Your task to perform on an android device: turn off javascript in the chrome app Image 0: 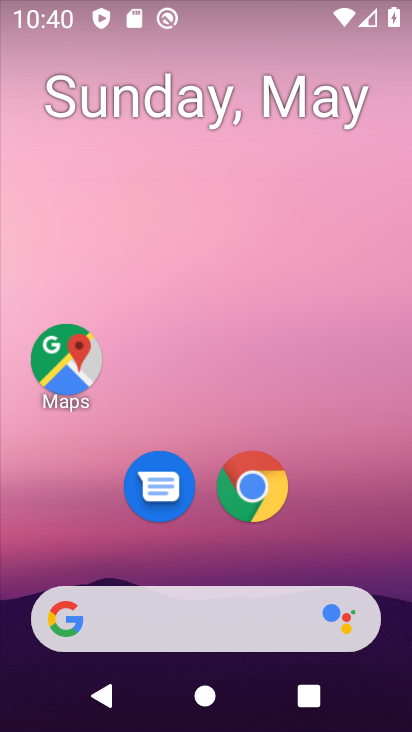
Step 0: drag from (399, 586) to (331, 156)
Your task to perform on an android device: turn off javascript in the chrome app Image 1: 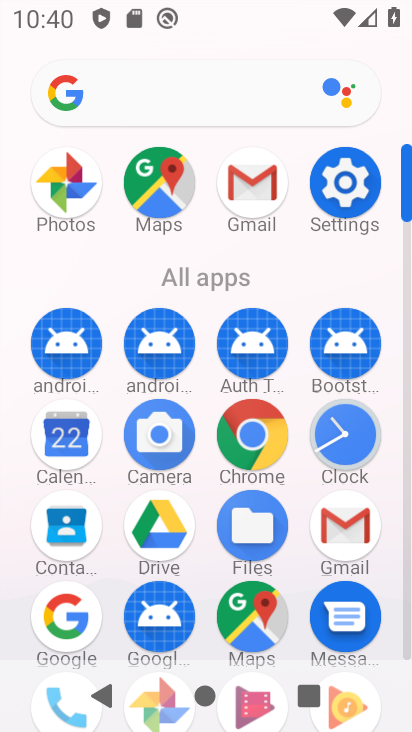
Step 1: click (269, 435)
Your task to perform on an android device: turn off javascript in the chrome app Image 2: 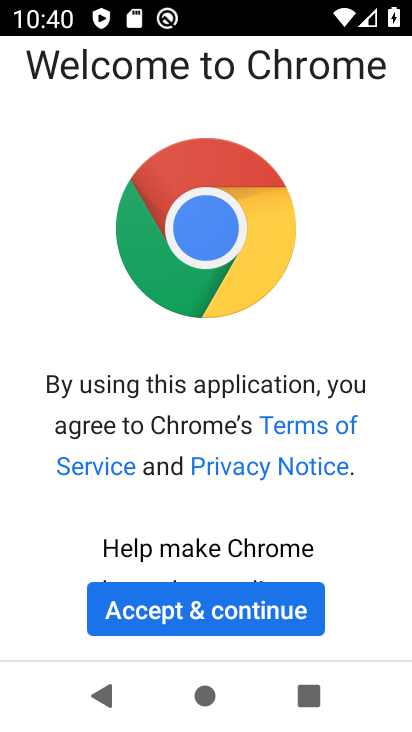
Step 2: click (295, 609)
Your task to perform on an android device: turn off javascript in the chrome app Image 3: 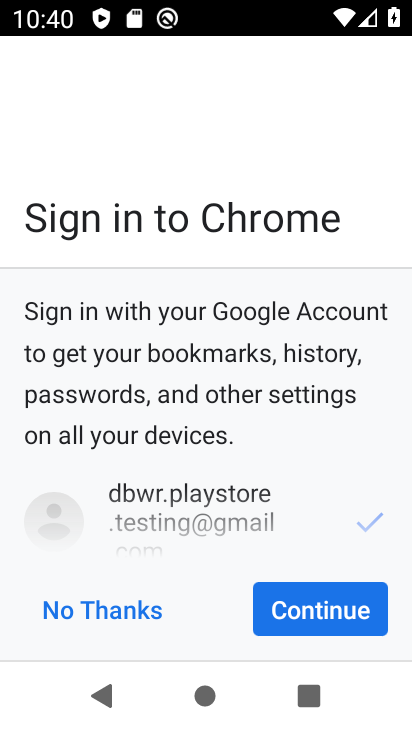
Step 3: click (295, 609)
Your task to perform on an android device: turn off javascript in the chrome app Image 4: 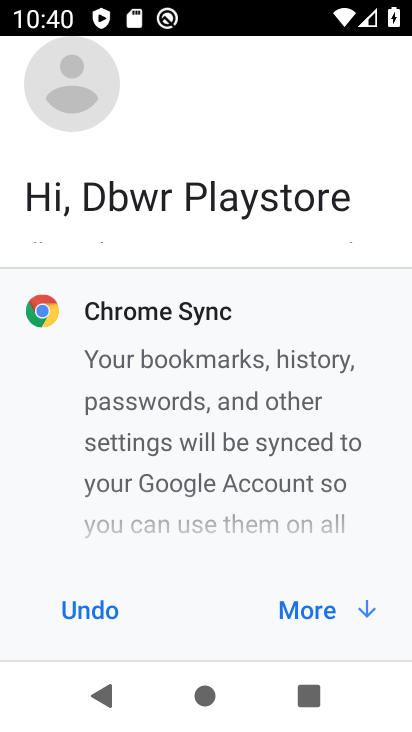
Step 4: click (295, 609)
Your task to perform on an android device: turn off javascript in the chrome app Image 5: 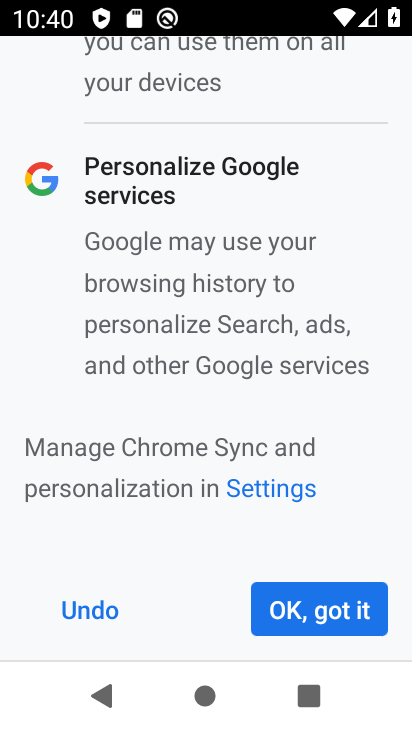
Step 5: click (295, 609)
Your task to perform on an android device: turn off javascript in the chrome app Image 6: 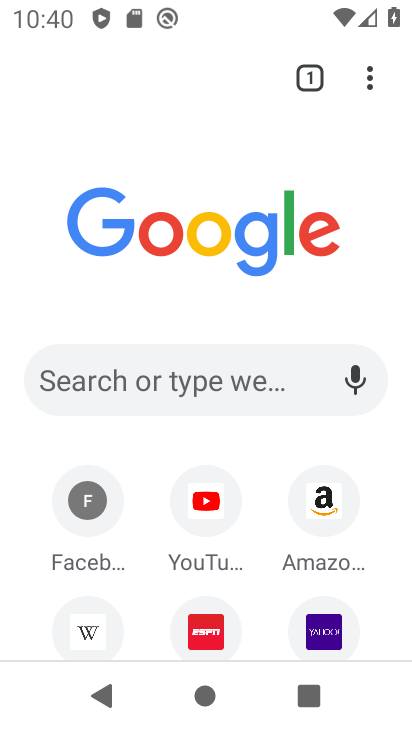
Step 6: click (359, 83)
Your task to perform on an android device: turn off javascript in the chrome app Image 7: 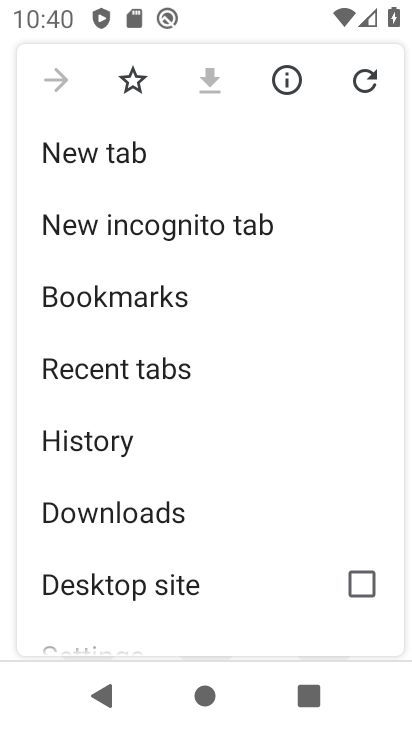
Step 7: drag from (210, 573) to (180, 156)
Your task to perform on an android device: turn off javascript in the chrome app Image 8: 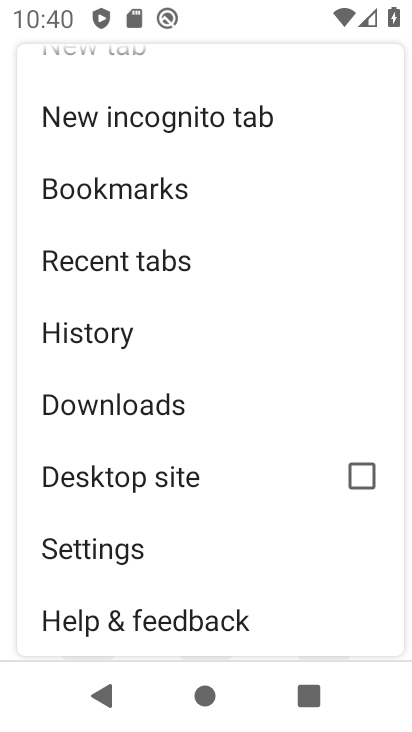
Step 8: click (204, 543)
Your task to perform on an android device: turn off javascript in the chrome app Image 9: 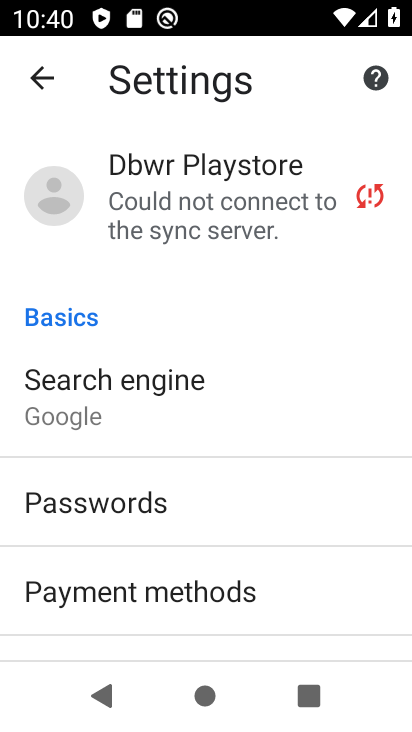
Step 9: drag from (265, 599) to (208, 137)
Your task to perform on an android device: turn off javascript in the chrome app Image 10: 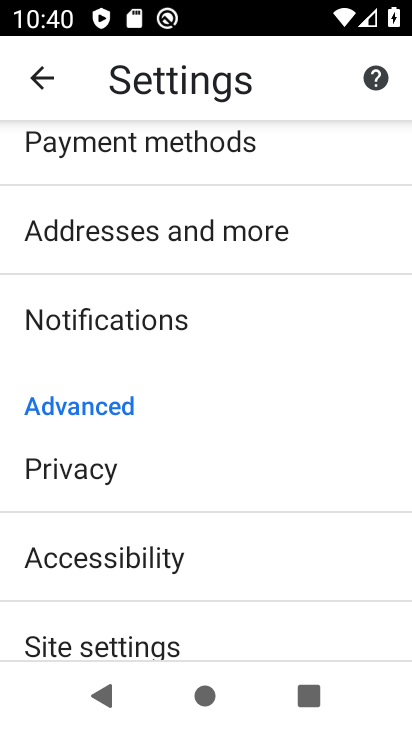
Step 10: drag from (243, 494) to (195, 214)
Your task to perform on an android device: turn off javascript in the chrome app Image 11: 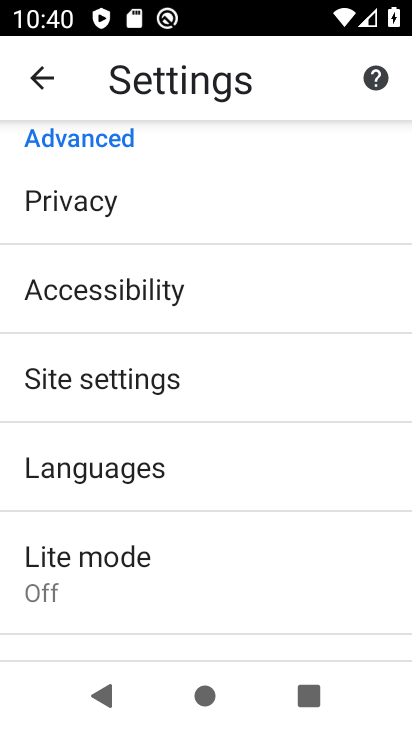
Step 11: click (201, 389)
Your task to perform on an android device: turn off javascript in the chrome app Image 12: 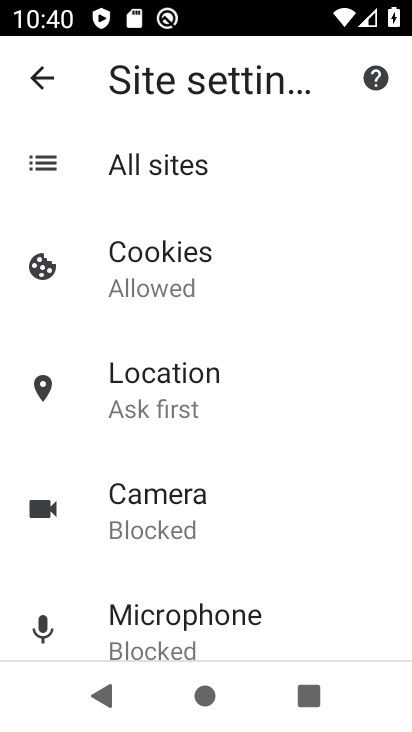
Step 12: drag from (249, 566) to (212, 221)
Your task to perform on an android device: turn off javascript in the chrome app Image 13: 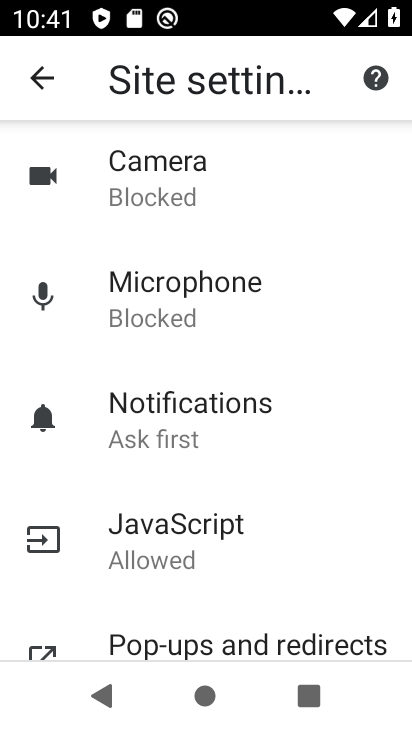
Step 13: click (234, 525)
Your task to perform on an android device: turn off javascript in the chrome app Image 14: 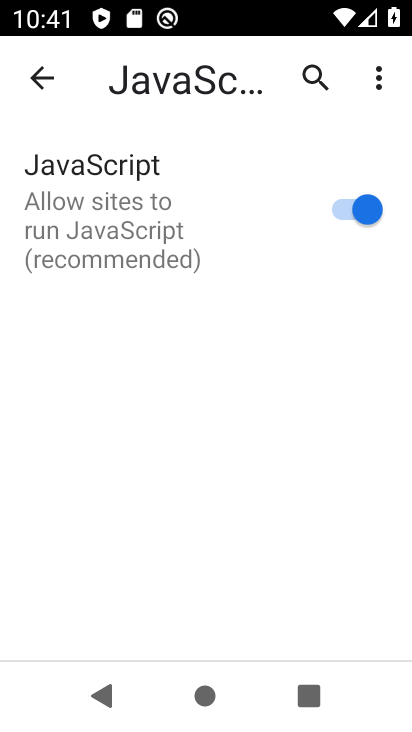
Step 14: click (347, 202)
Your task to perform on an android device: turn off javascript in the chrome app Image 15: 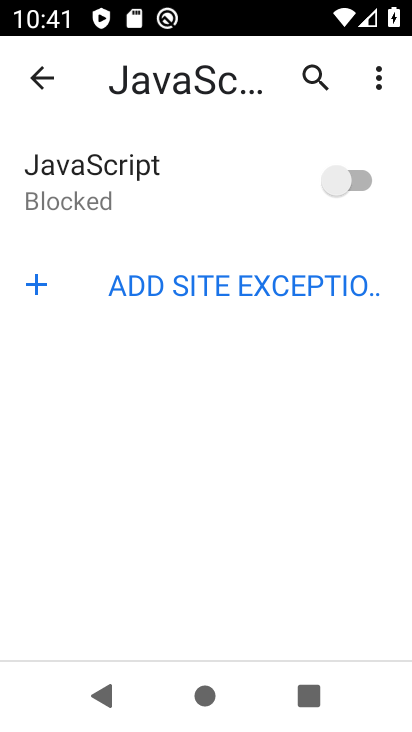
Step 15: task complete